Your task to perform on an android device: Open Google Maps and go to "Timeline" Image 0: 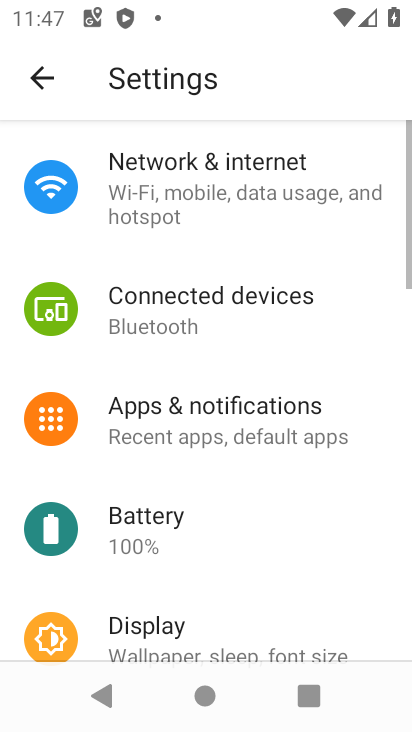
Step 0: press back button
Your task to perform on an android device: Open Google Maps and go to "Timeline" Image 1: 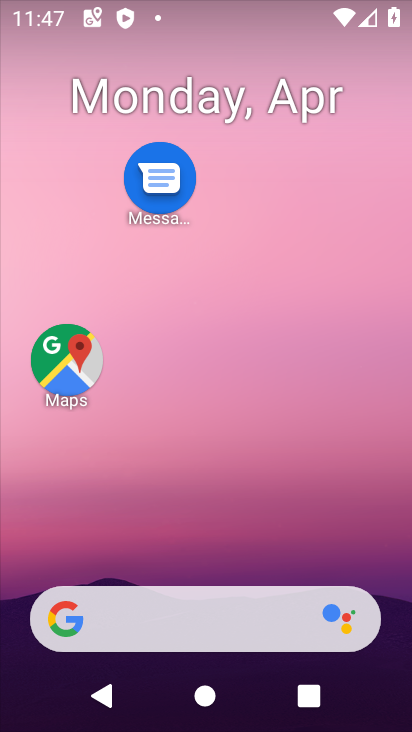
Step 1: drag from (204, 720) to (186, 83)
Your task to perform on an android device: Open Google Maps and go to "Timeline" Image 2: 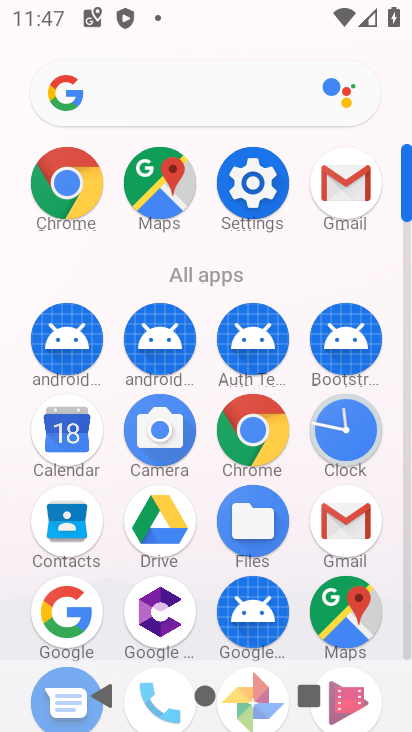
Step 2: click (347, 603)
Your task to perform on an android device: Open Google Maps and go to "Timeline" Image 3: 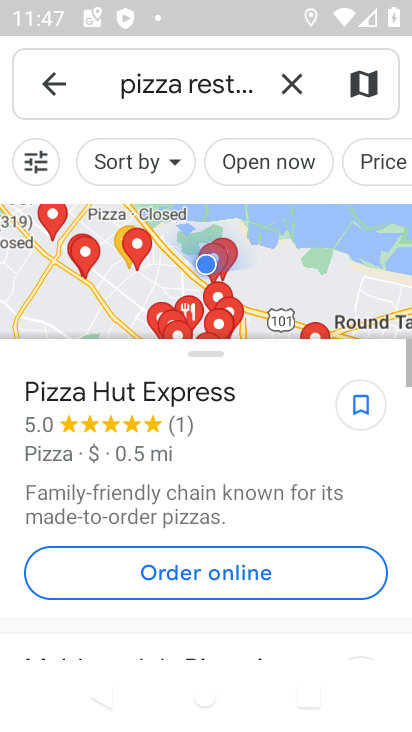
Step 3: click (52, 82)
Your task to perform on an android device: Open Google Maps and go to "Timeline" Image 4: 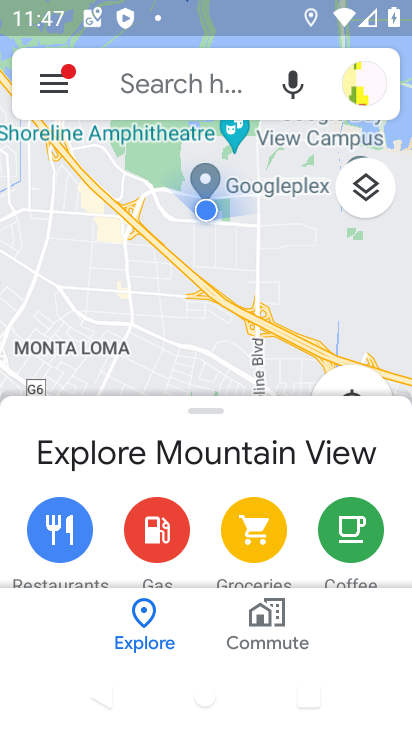
Step 4: click (51, 80)
Your task to perform on an android device: Open Google Maps and go to "Timeline" Image 5: 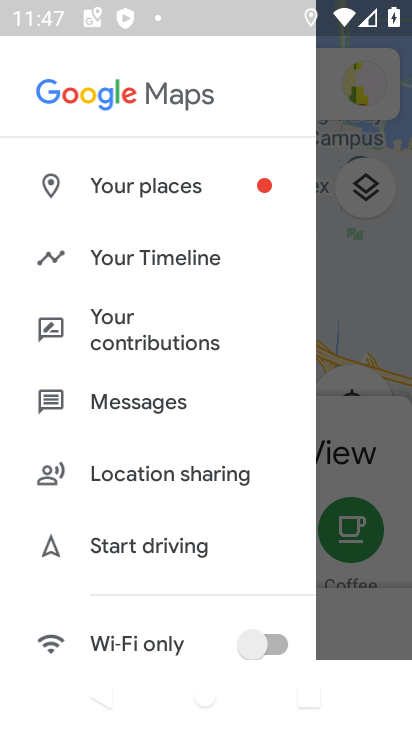
Step 5: click (158, 257)
Your task to perform on an android device: Open Google Maps and go to "Timeline" Image 6: 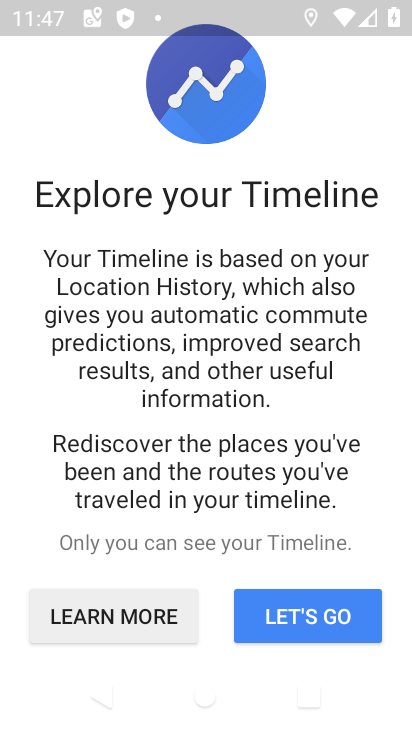
Step 6: click (292, 622)
Your task to perform on an android device: Open Google Maps and go to "Timeline" Image 7: 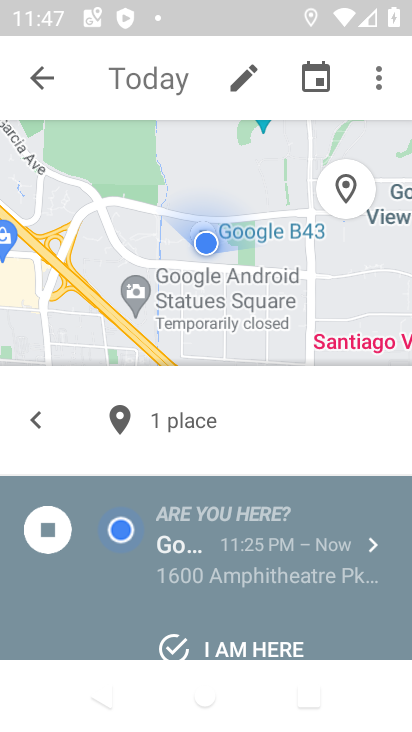
Step 7: task complete